Your task to perform on an android device: turn off priority inbox in the gmail app Image 0: 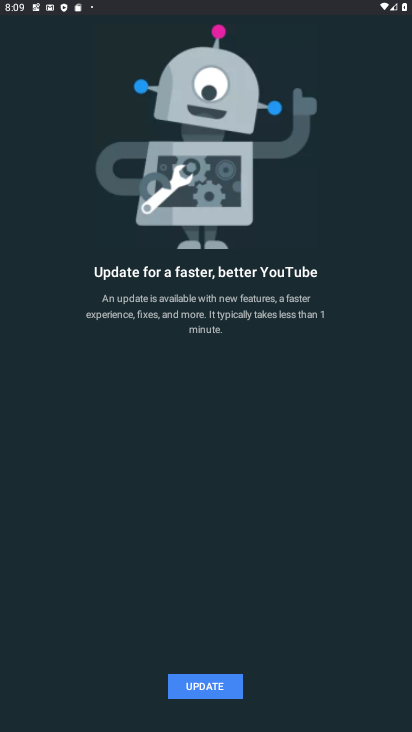
Step 0: press home button
Your task to perform on an android device: turn off priority inbox in the gmail app Image 1: 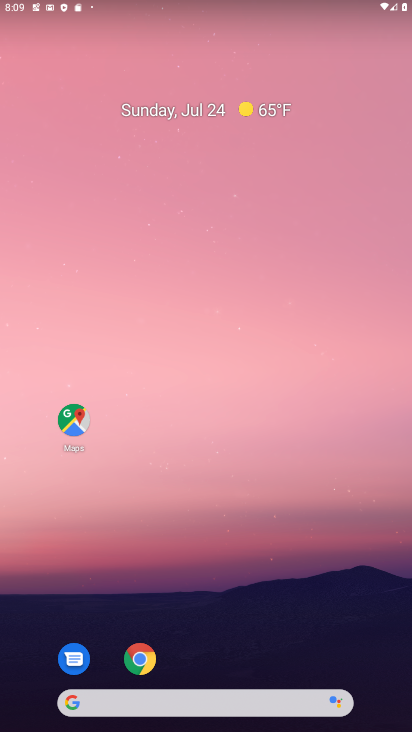
Step 1: drag from (265, 687) to (257, 19)
Your task to perform on an android device: turn off priority inbox in the gmail app Image 2: 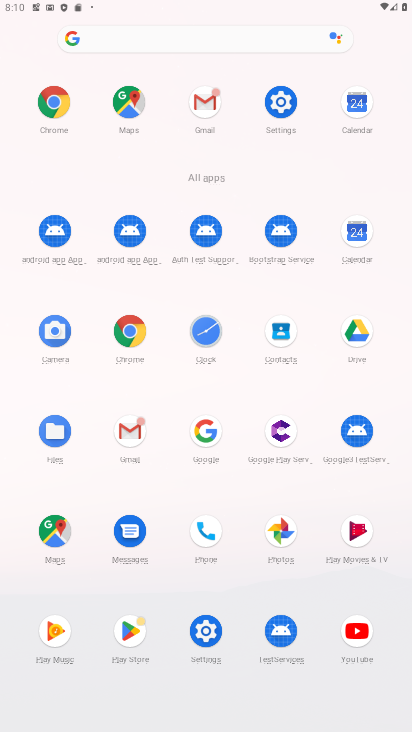
Step 2: click (205, 107)
Your task to perform on an android device: turn off priority inbox in the gmail app Image 3: 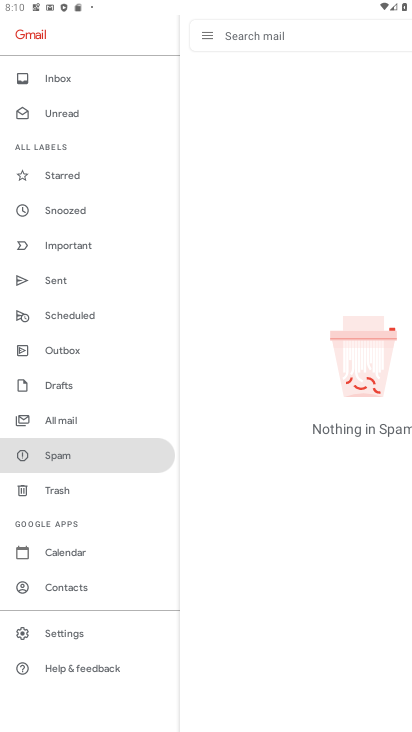
Step 3: click (74, 628)
Your task to perform on an android device: turn off priority inbox in the gmail app Image 4: 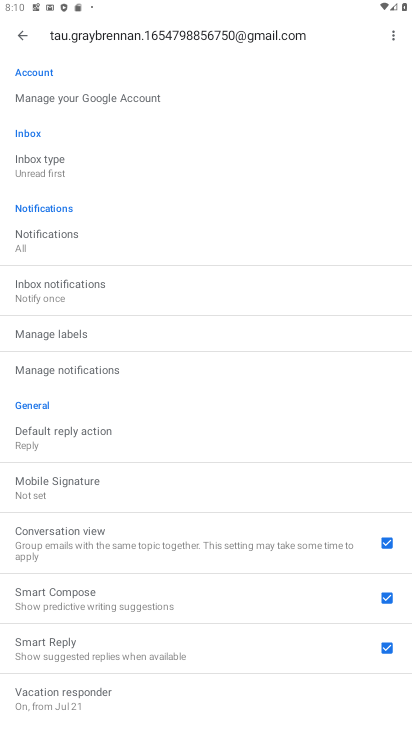
Step 4: click (35, 171)
Your task to perform on an android device: turn off priority inbox in the gmail app Image 5: 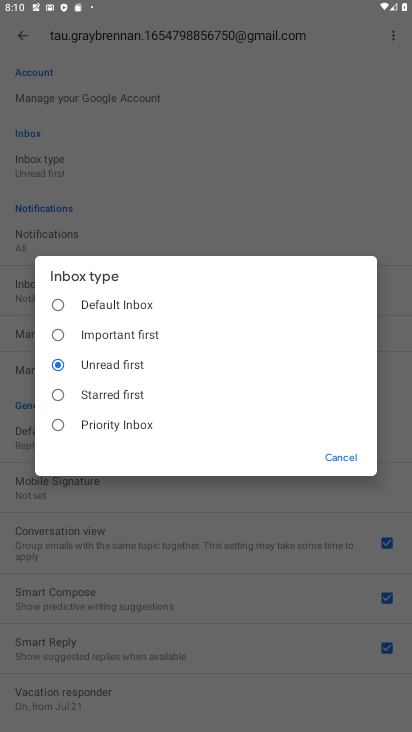
Step 5: task complete